Your task to perform on an android device: set default search engine in the chrome app Image 0: 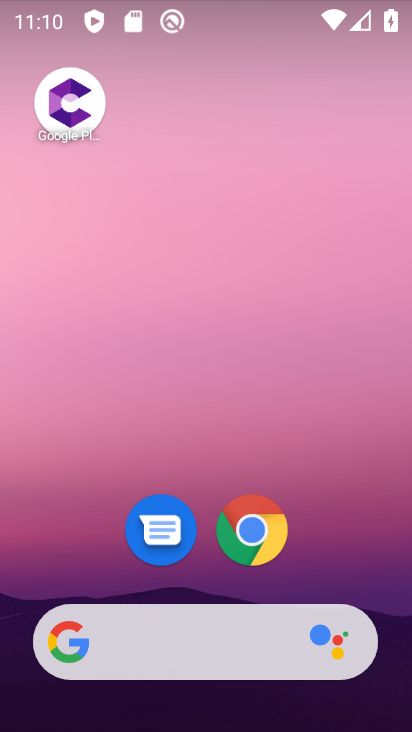
Step 0: click (255, 543)
Your task to perform on an android device: set default search engine in the chrome app Image 1: 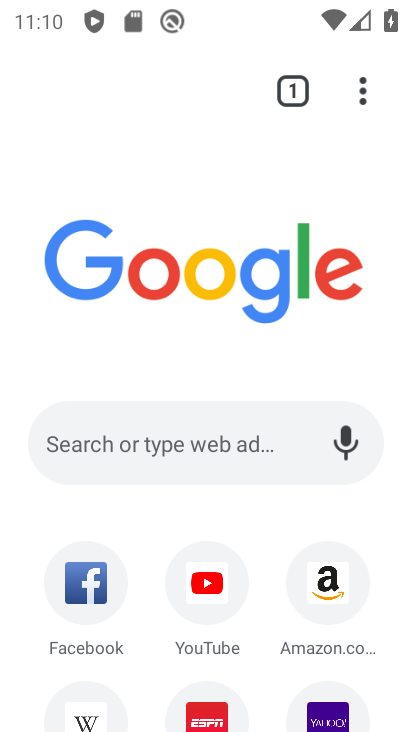
Step 1: click (362, 92)
Your task to perform on an android device: set default search engine in the chrome app Image 2: 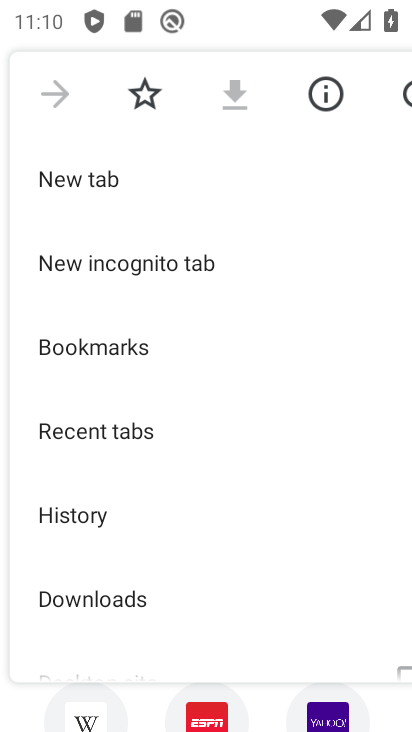
Step 2: drag from (283, 472) to (250, 155)
Your task to perform on an android device: set default search engine in the chrome app Image 3: 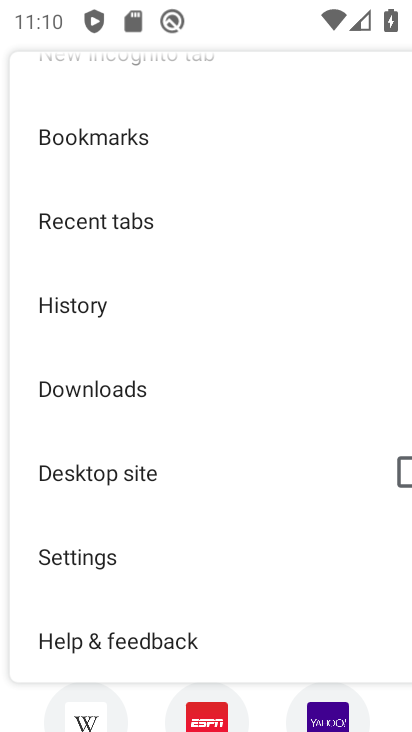
Step 3: click (117, 564)
Your task to perform on an android device: set default search engine in the chrome app Image 4: 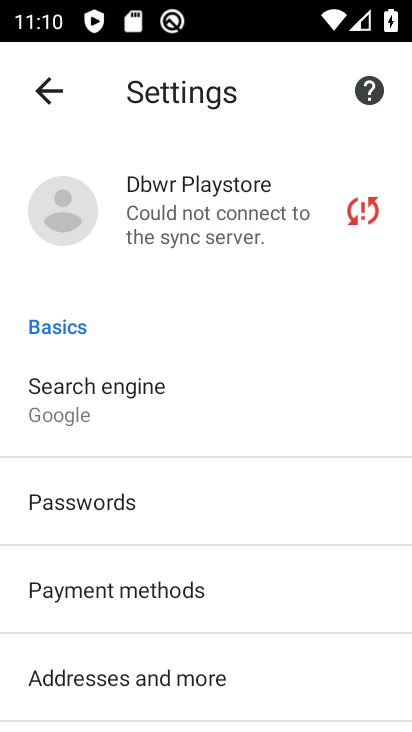
Step 4: click (120, 406)
Your task to perform on an android device: set default search engine in the chrome app Image 5: 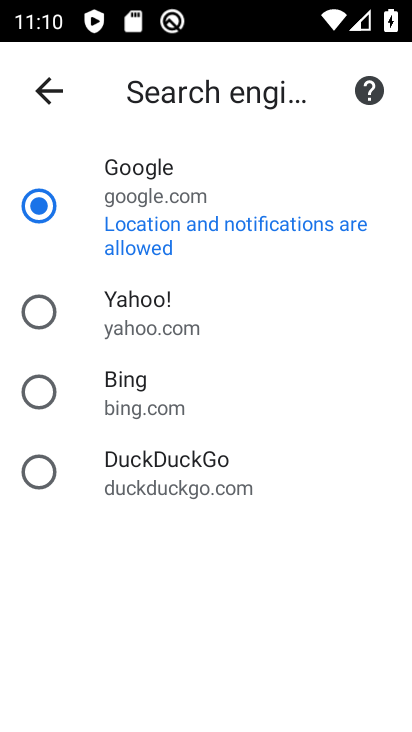
Step 5: task complete